Your task to perform on an android device: toggle notifications settings in the gmail app Image 0: 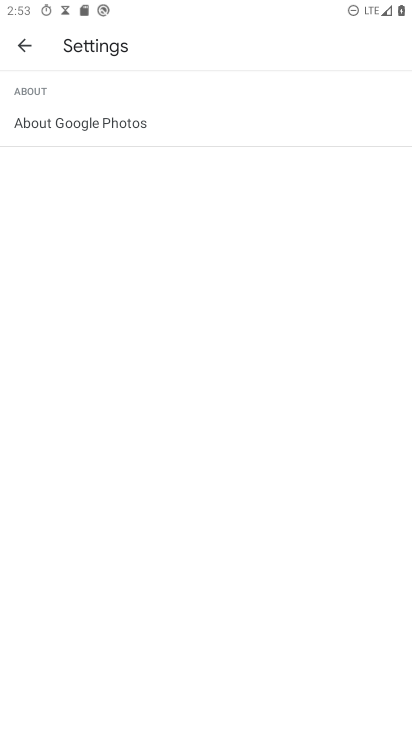
Step 0: press home button
Your task to perform on an android device: toggle notifications settings in the gmail app Image 1: 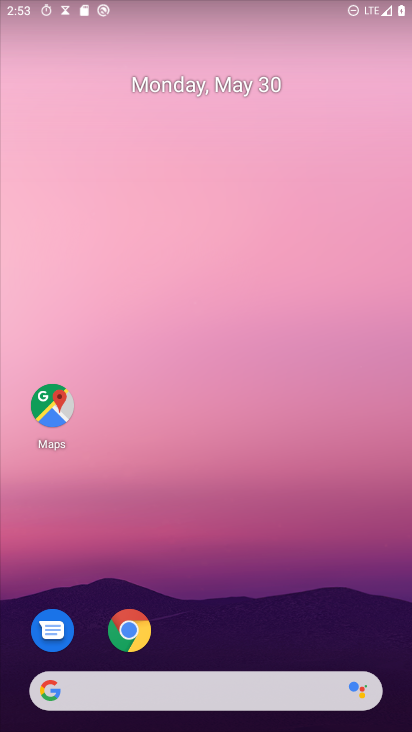
Step 1: drag from (234, 713) to (152, 86)
Your task to perform on an android device: toggle notifications settings in the gmail app Image 2: 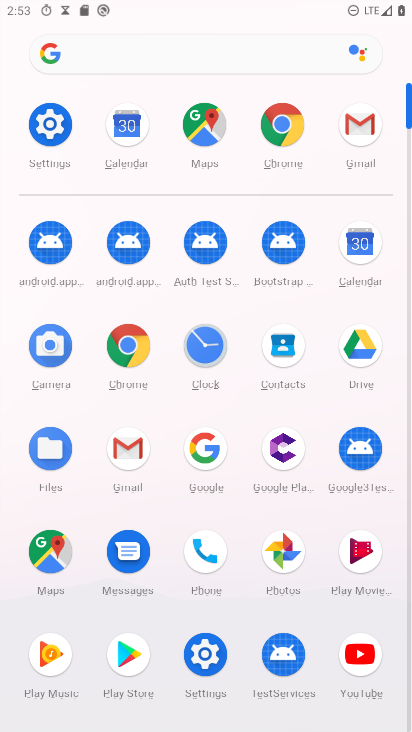
Step 2: click (126, 430)
Your task to perform on an android device: toggle notifications settings in the gmail app Image 3: 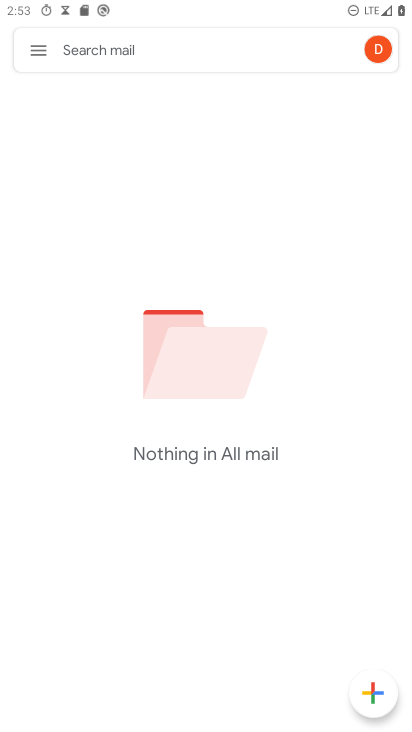
Step 3: click (35, 47)
Your task to perform on an android device: toggle notifications settings in the gmail app Image 4: 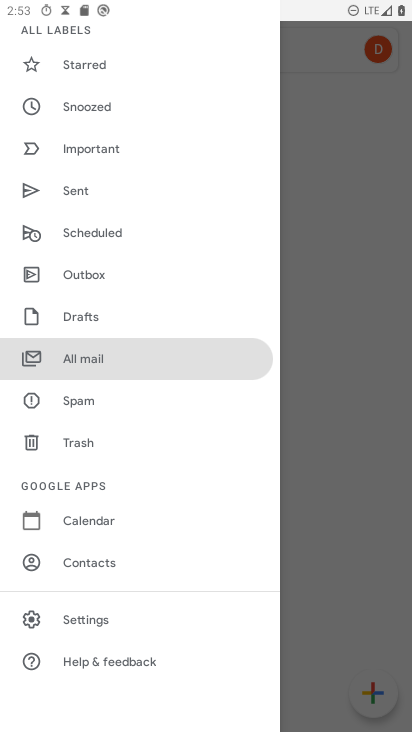
Step 4: click (104, 623)
Your task to perform on an android device: toggle notifications settings in the gmail app Image 5: 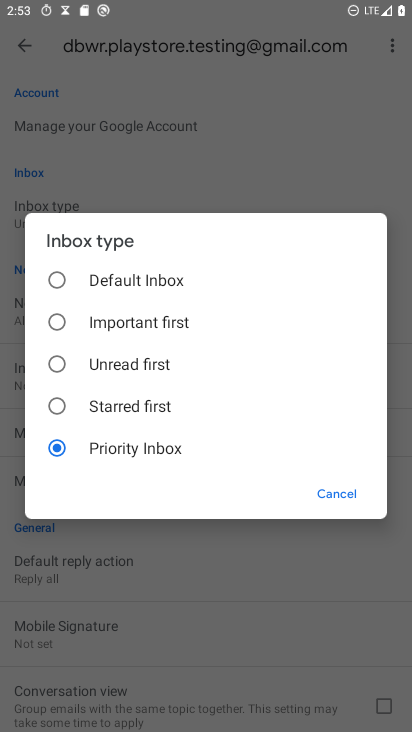
Step 5: click (345, 484)
Your task to perform on an android device: toggle notifications settings in the gmail app Image 6: 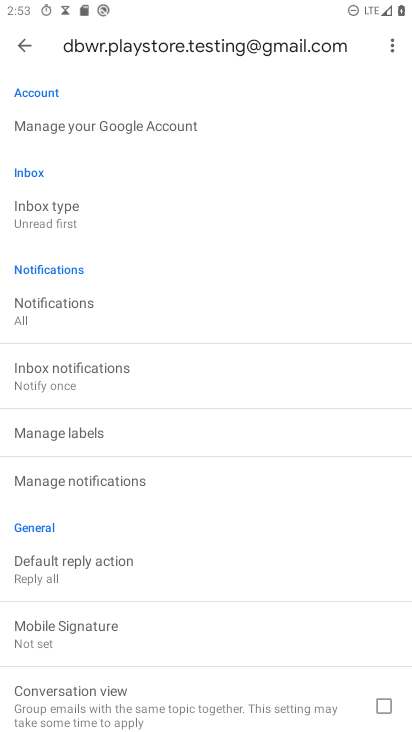
Step 6: click (38, 308)
Your task to perform on an android device: toggle notifications settings in the gmail app Image 7: 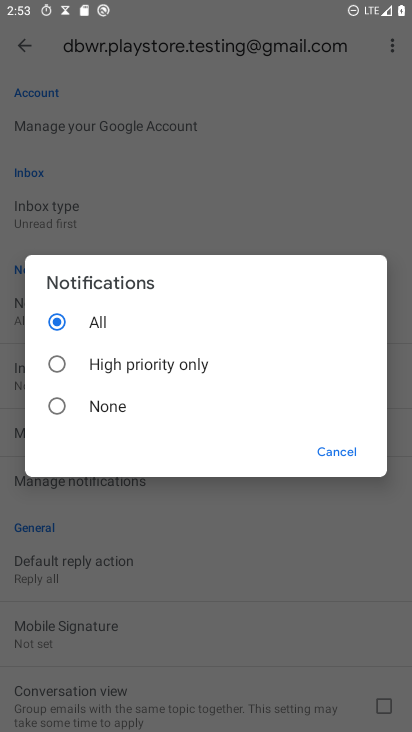
Step 7: task complete